Your task to perform on an android device: turn off translation in the chrome app Image 0: 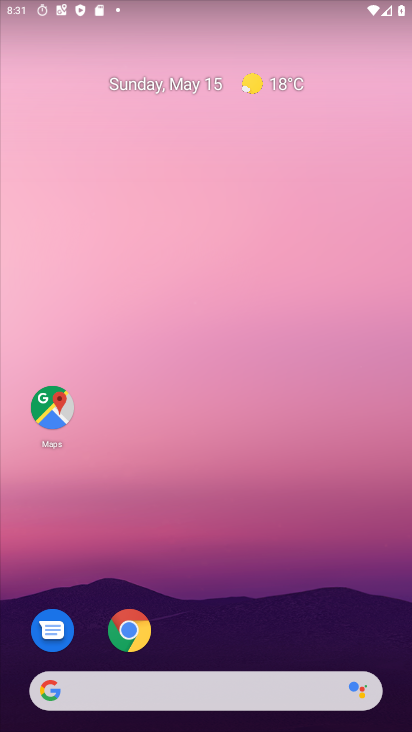
Step 0: click (260, 232)
Your task to perform on an android device: turn off translation in the chrome app Image 1: 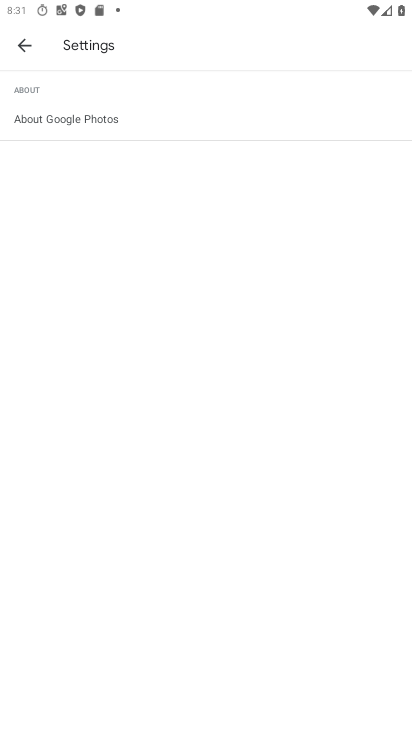
Step 1: drag from (192, 681) to (260, 110)
Your task to perform on an android device: turn off translation in the chrome app Image 2: 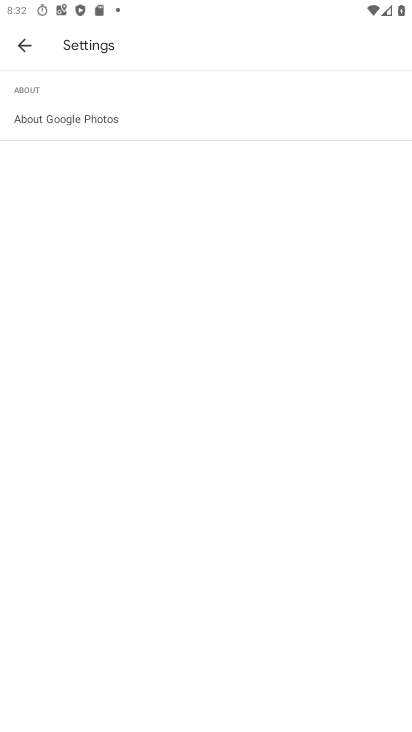
Step 2: press home button
Your task to perform on an android device: turn off translation in the chrome app Image 3: 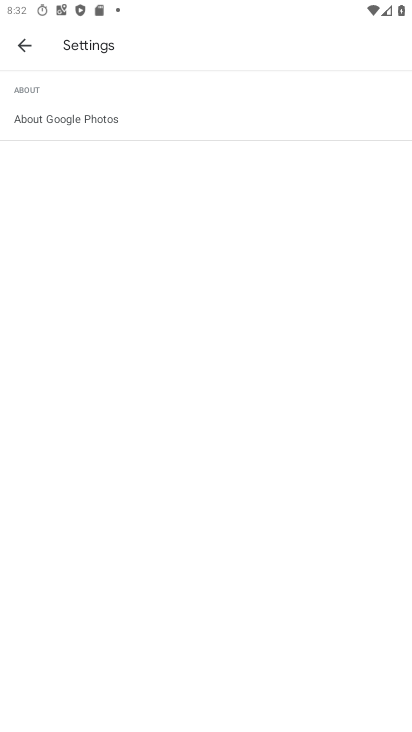
Step 3: press home button
Your task to perform on an android device: turn off translation in the chrome app Image 4: 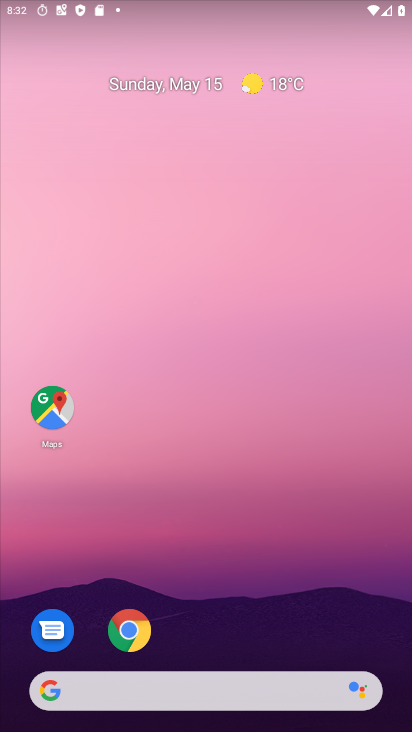
Step 4: drag from (202, 640) to (259, 70)
Your task to perform on an android device: turn off translation in the chrome app Image 5: 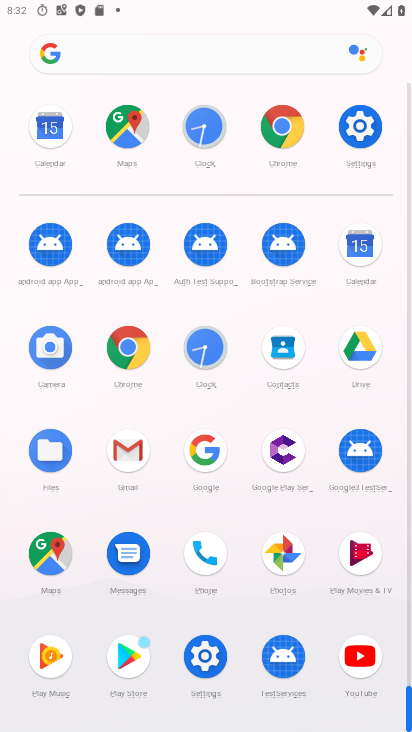
Step 5: click (127, 348)
Your task to perform on an android device: turn off translation in the chrome app Image 6: 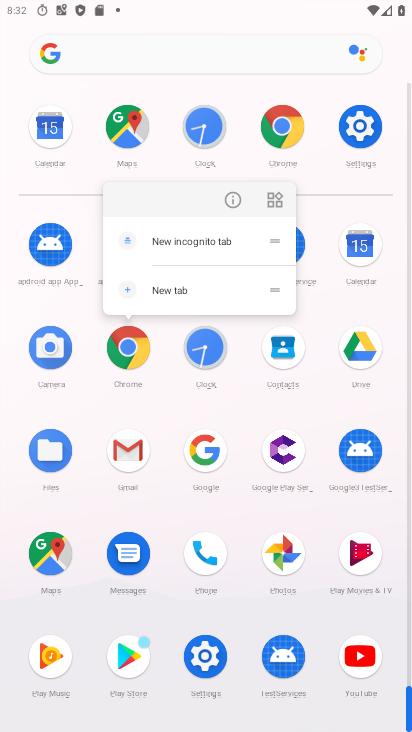
Step 6: click (234, 195)
Your task to perform on an android device: turn off translation in the chrome app Image 7: 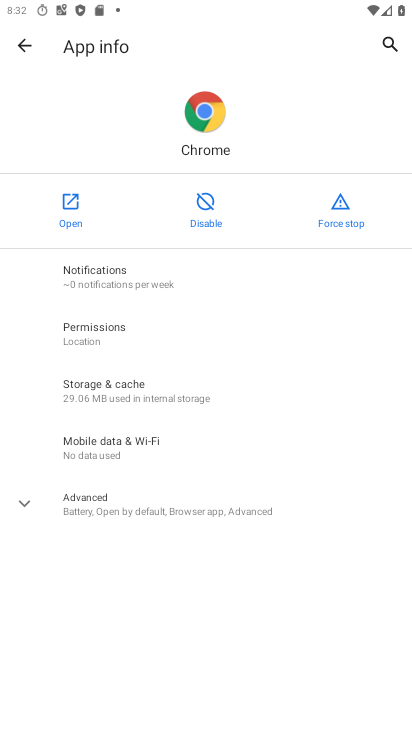
Step 7: click (59, 203)
Your task to perform on an android device: turn off translation in the chrome app Image 8: 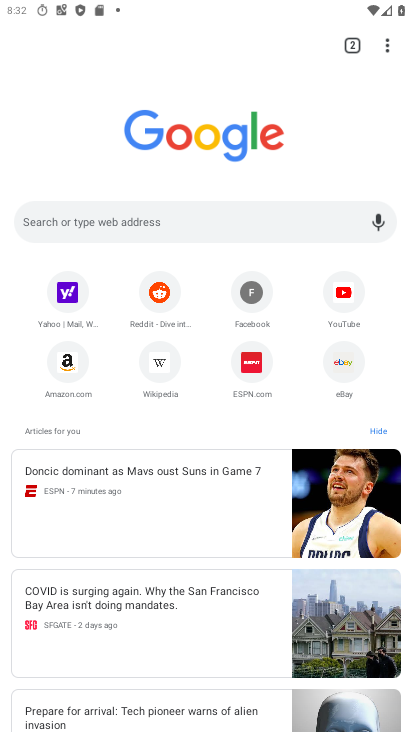
Step 8: drag from (388, 53) to (268, 383)
Your task to perform on an android device: turn off translation in the chrome app Image 9: 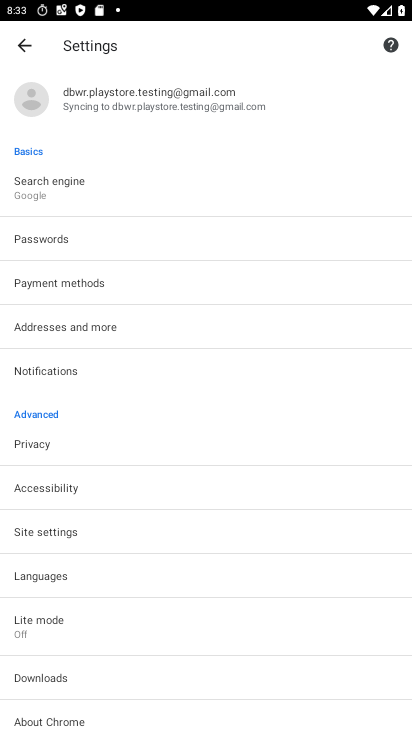
Step 9: drag from (261, 645) to (330, 268)
Your task to perform on an android device: turn off translation in the chrome app Image 10: 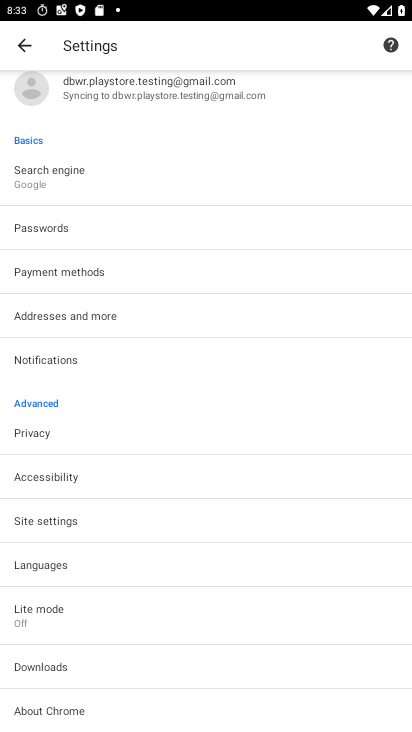
Step 10: click (68, 562)
Your task to perform on an android device: turn off translation in the chrome app Image 11: 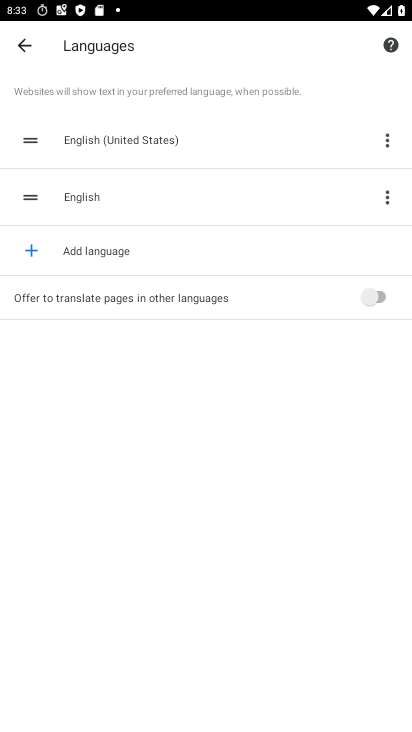
Step 11: click (367, 286)
Your task to perform on an android device: turn off translation in the chrome app Image 12: 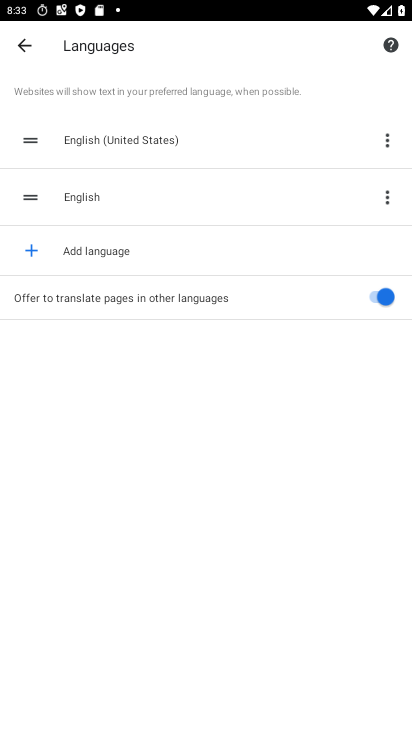
Step 12: click (391, 304)
Your task to perform on an android device: turn off translation in the chrome app Image 13: 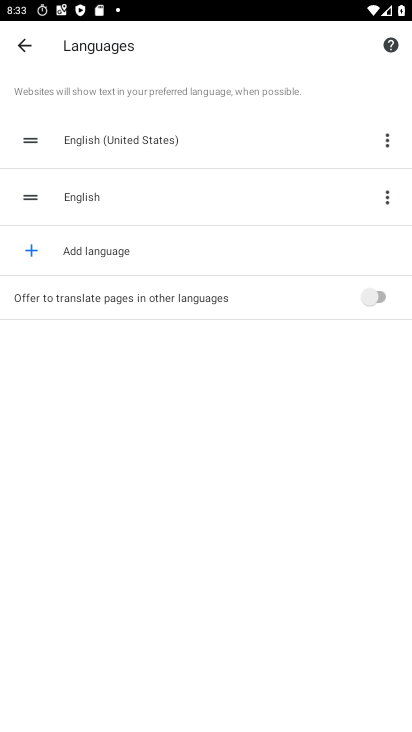
Step 13: task complete